Your task to perform on an android device: turn notification dots off Image 0: 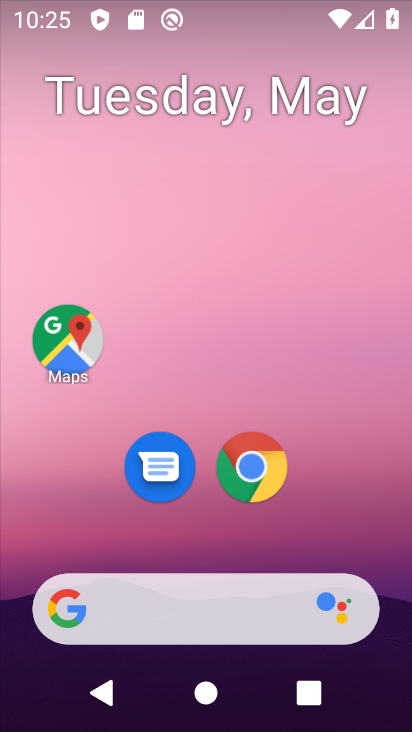
Step 0: drag from (231, 523) to (345, 90)
Your task to perform on an android device: turn notification dots off Image 1: 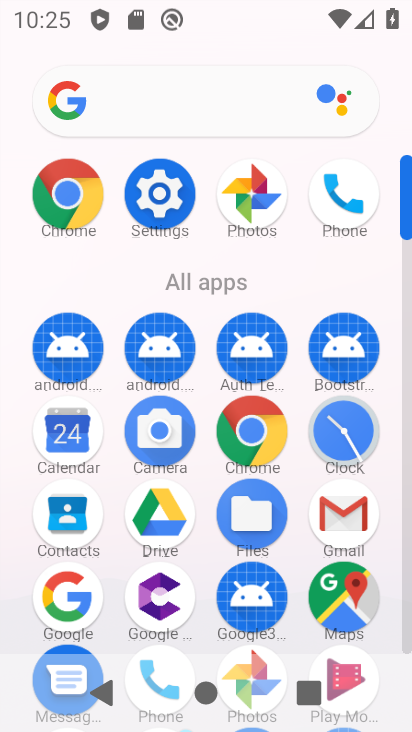
Step 1: click (153, 188)
Your task to perform on an android device: turn notification dots off Image 2: 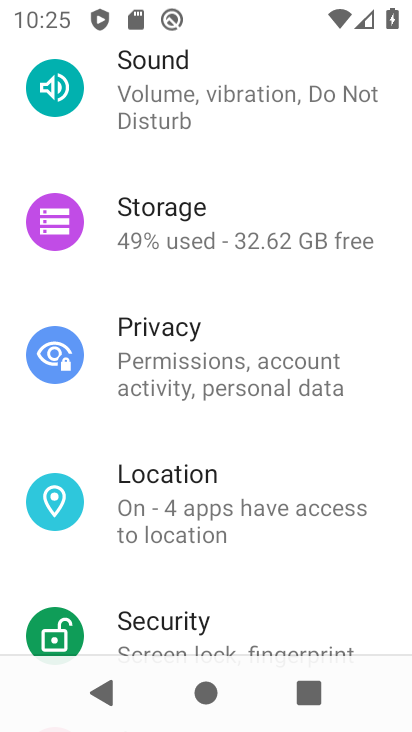
Step 2: drag from (261, 463) to (312, 187)
Your task to perform on an android device: turn notification dots off Image 3: 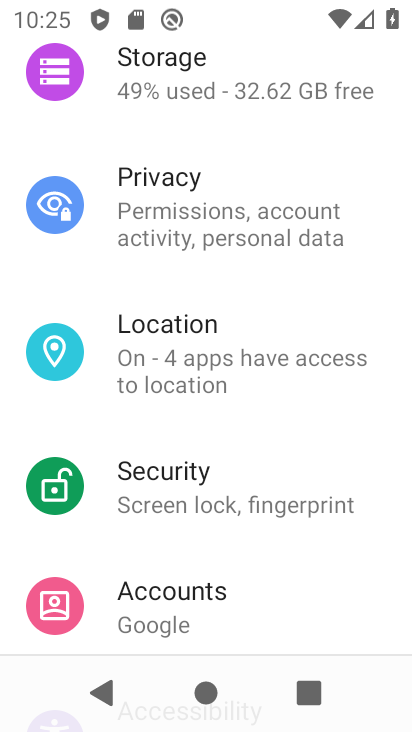
Step 3: drag from (264, 236) to (271, 715)
Your task to perform on an android device: turn notification dots off Image 4: 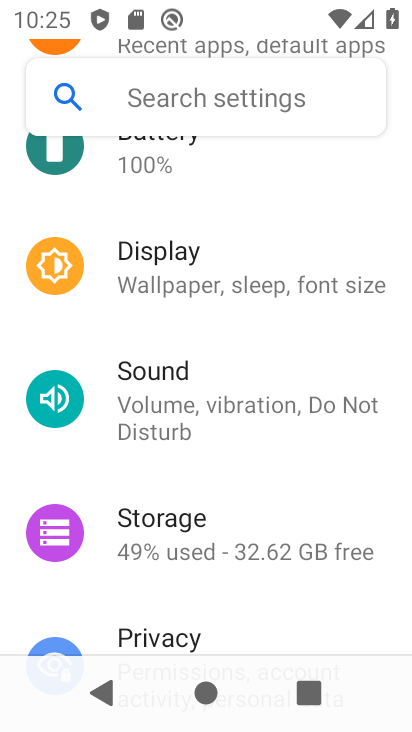
Step 4: drag from (239, 246) to (320, 698)
Your task to perform on an android device: turn notification dots off Image 5: 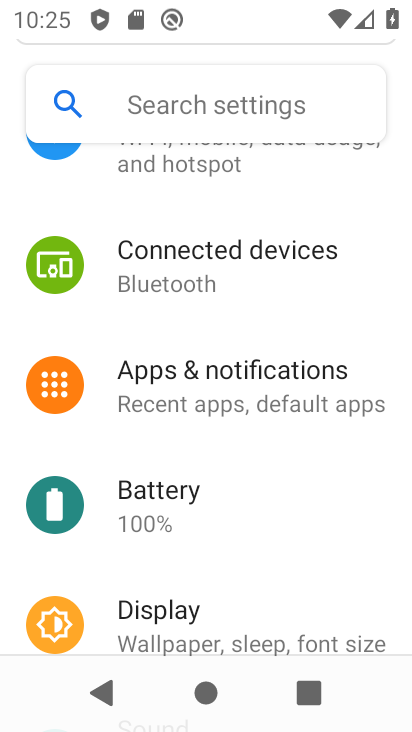
Step 5: click (205, 408)
Your task to perform on an android device: turn notification dots off Image 6: 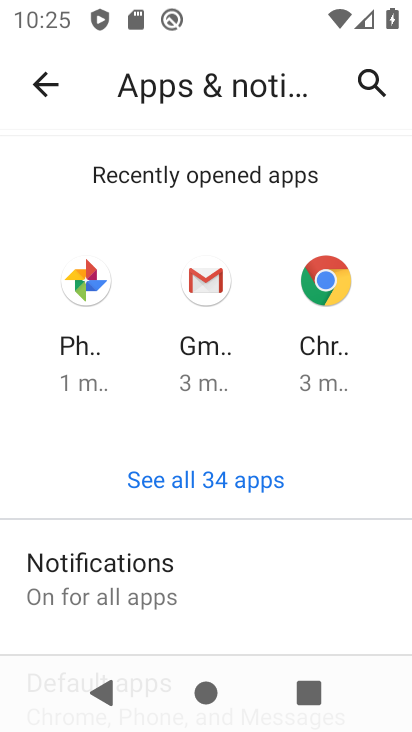
Step 6: click (188, 576)
Your task to perform on an android device: turn notification dots off Image 7: 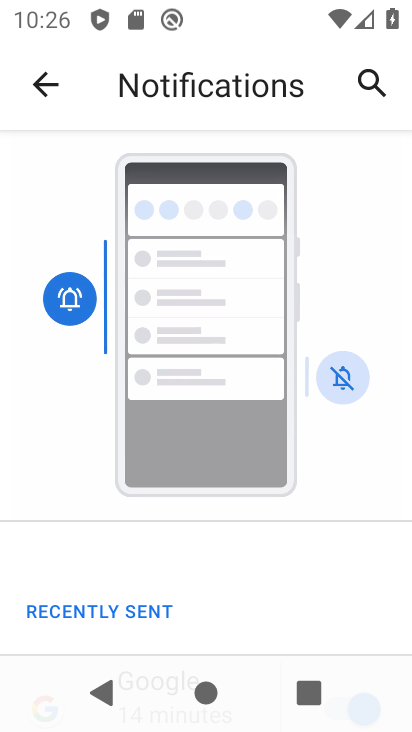
Step 7: drag from (223, 602) to (356, 71)
Your task to perform on an android device: turn notification dots off Image 8: 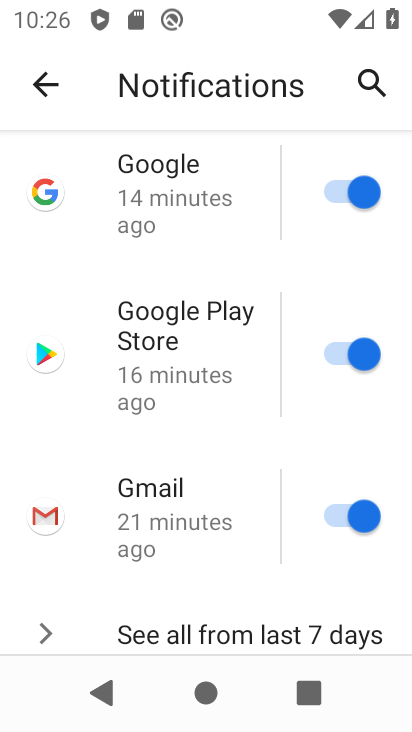
Step 8: drag from (273, 597) to (284, 263)
Your task to perform on an android device: turn notification dots off Image 9: 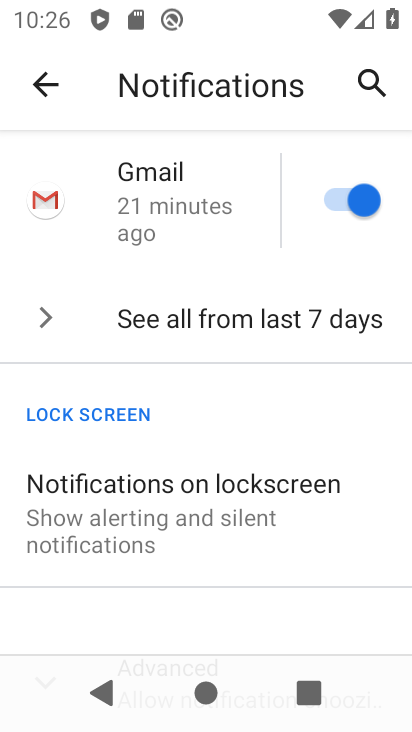
Step 9: drag from (163, 635) to (290, 49)
Your task to perform on an android device: turn notification dots off Image 10: 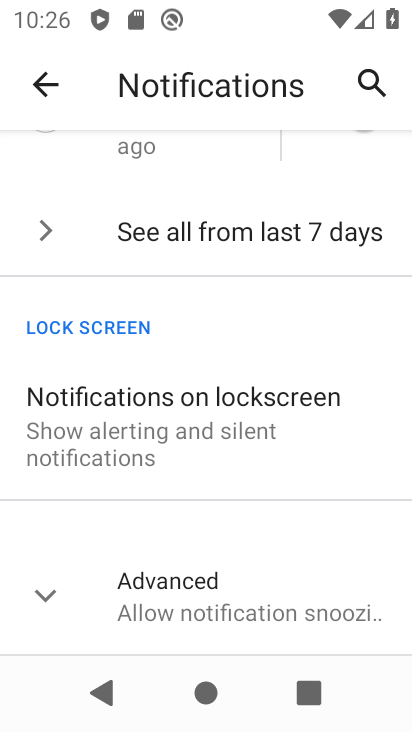
Step 10: click (158, 605)
Your task to perform on an android device: turn notification dots off Image 11: 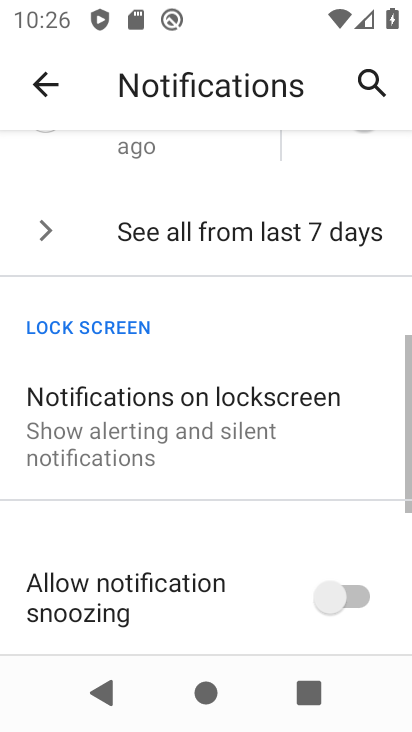
Step 11: drag from (222, 565) to (289, 139)
Your task to perform on an android device: turn notification dots off Image 12: 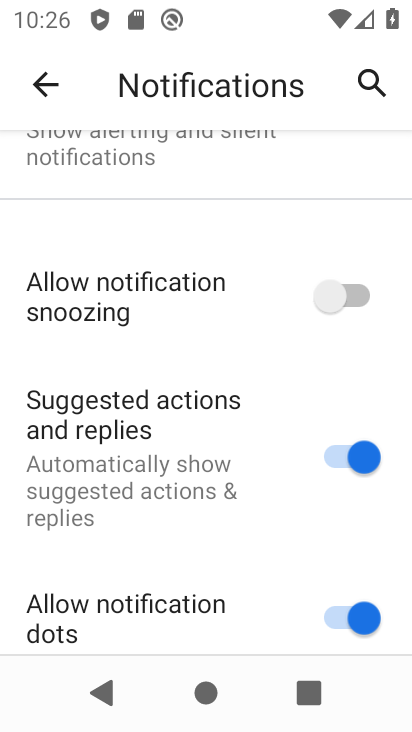
Step 12: click (355, 616)
Your task to perform on an android device: turn notification dots off Image 13: 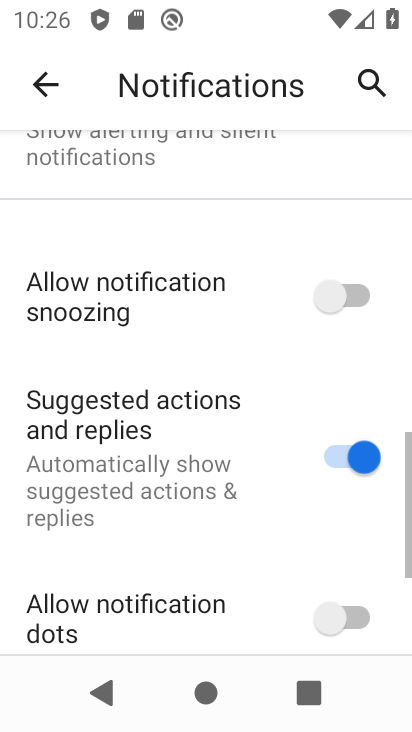
Step 13: task complete